Your task to perform on an android device: change the clock display to analog Image 0: 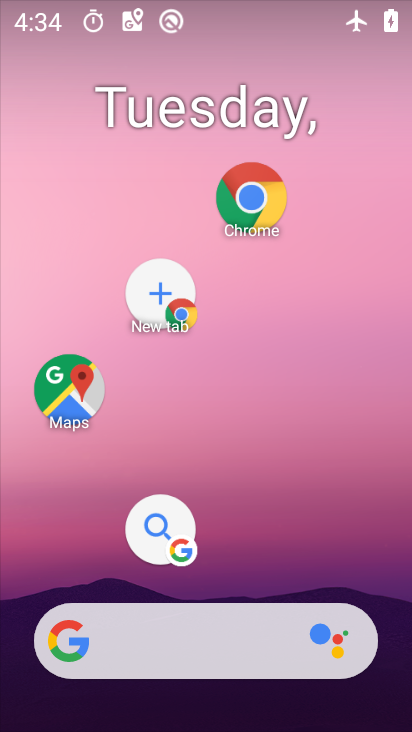
Step 0: click (233, 95)
Your task to perform on an android device: change the clock display to analog Image 1: 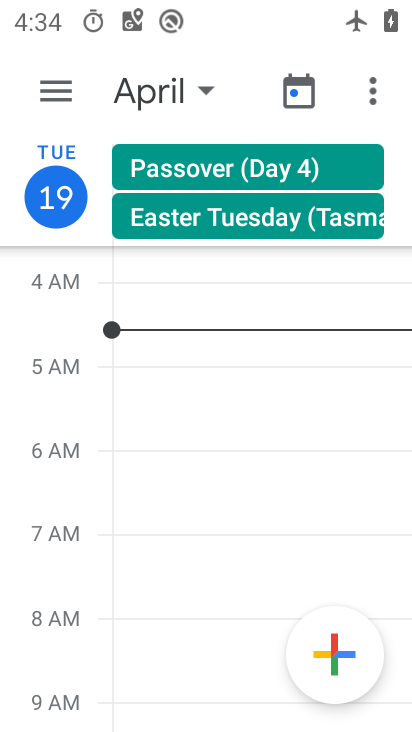
Step 1: press back button
Your task to perform on an android device: change the clock display to analog Image 2: 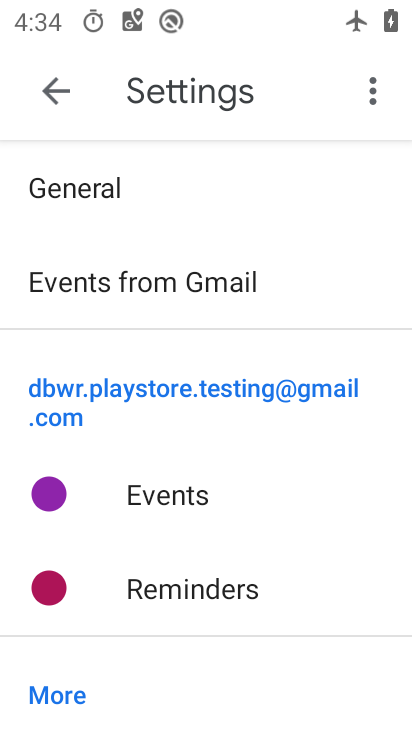
Step 2: press home button
Your task to perform on an android device: change the clock display to analog Image 3: 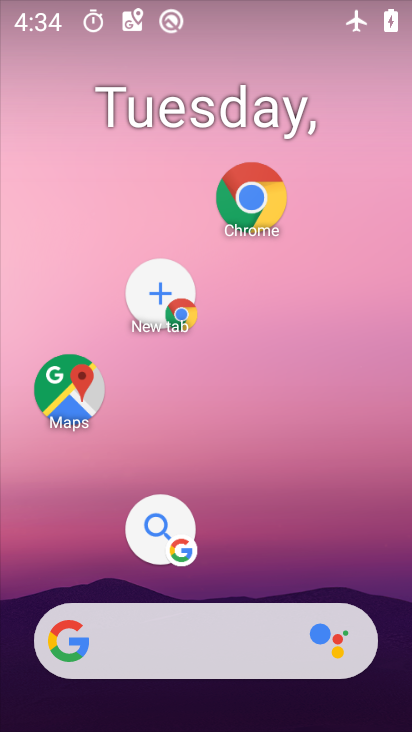
Step 3: drag from (197, 539) to (242, 217)
Your task to perform on an android device: change the clock display to analog Image 4: 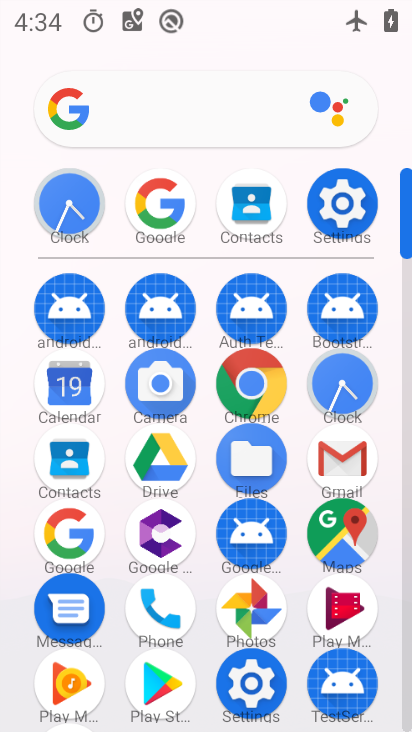
Step 4: click (343, 381)
Your task to perform on an android device: change the clock display to analog Image 5: 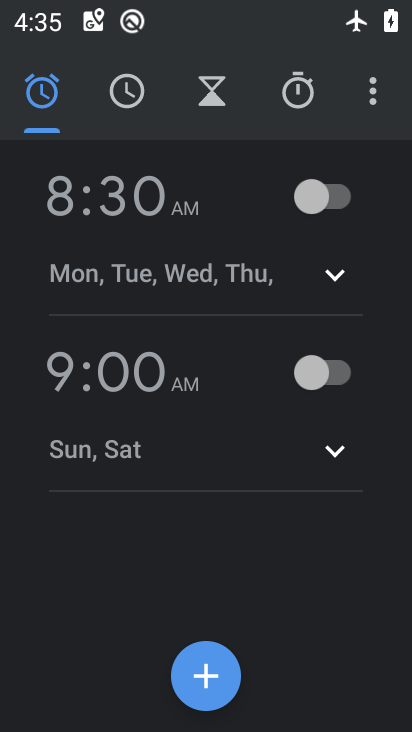
Step 5: click (375, 93)
Your task to perform on an android device: change the clock display to analog Image 6: 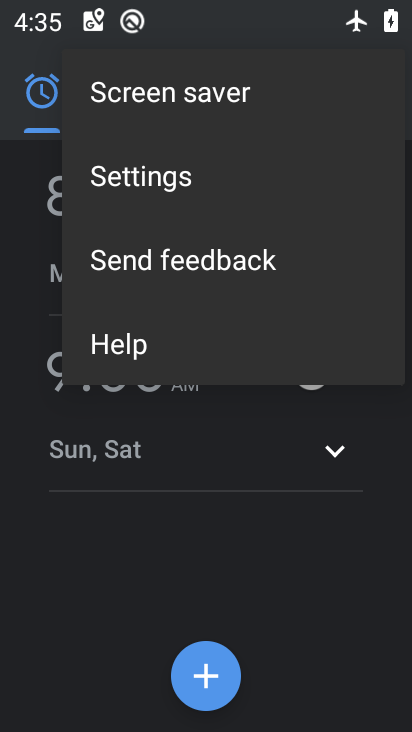
Step 6: click (126, 169)
Your task to perform on an android device: change the clock display to analog Image 7: 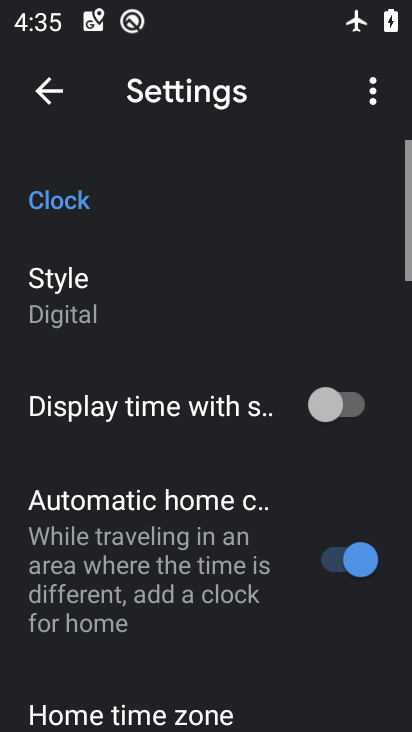
Step 7: click (54, 316)
Your task to perform on an android device: change the clock display to analog Image 8: 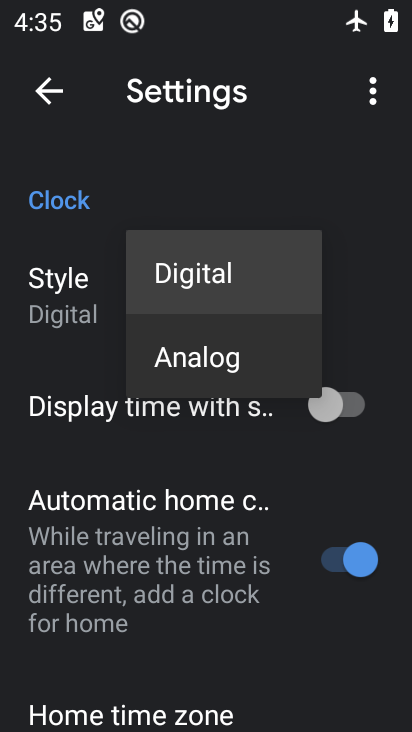
Step 8: click (201, 348)
Your task to perform on an android device: change the clock display to analog Image 9: 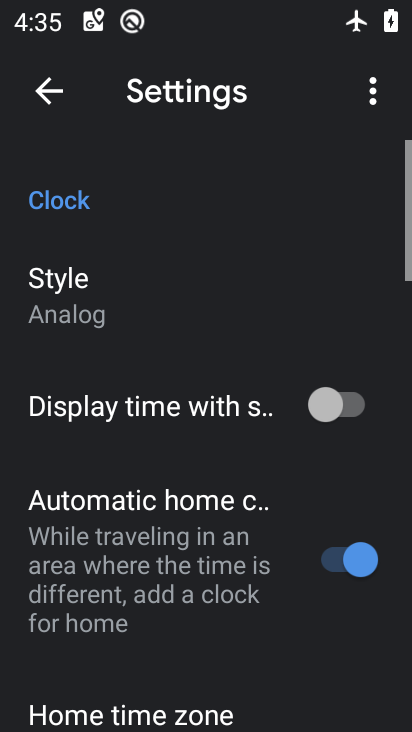
Step 9: task complete